Your task to perform on an android device: Open Amazon Image 0: 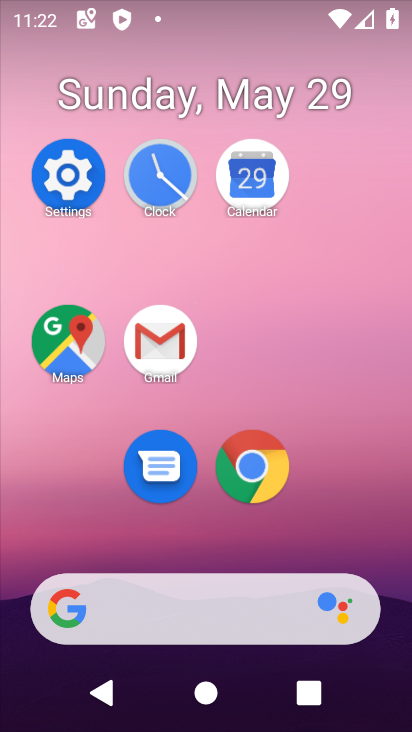
Step 0: click (252, 496)
Your task to perform on an android device: Open Amazon Image 1: 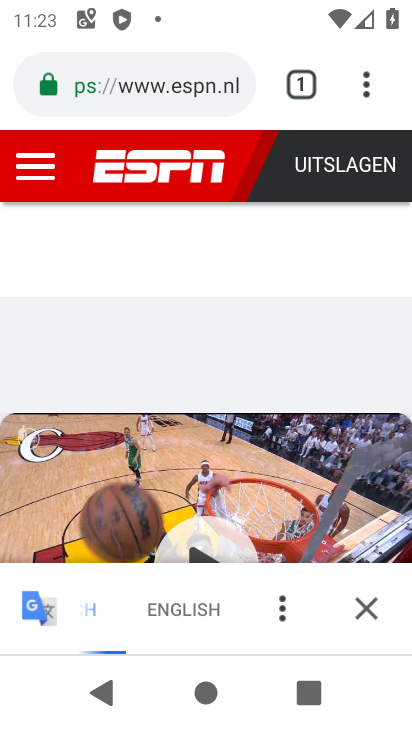
Step 1: click (295, 81)
Your task to perform on an android device: Open Amazon Image 2: 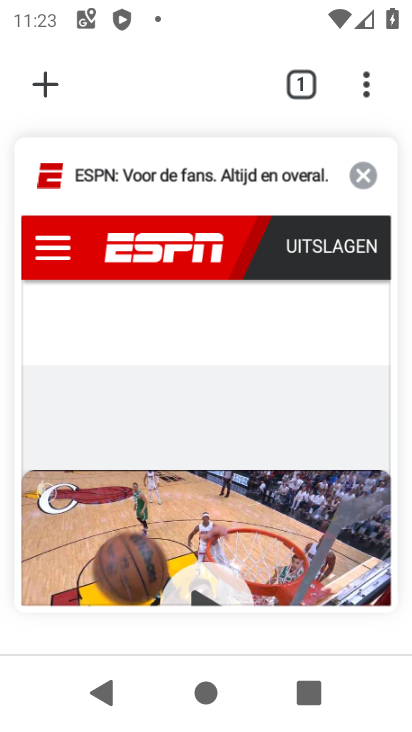
Step 2: click (47, 108)
Your task to perform on an android device: Open Amazon Image 3: 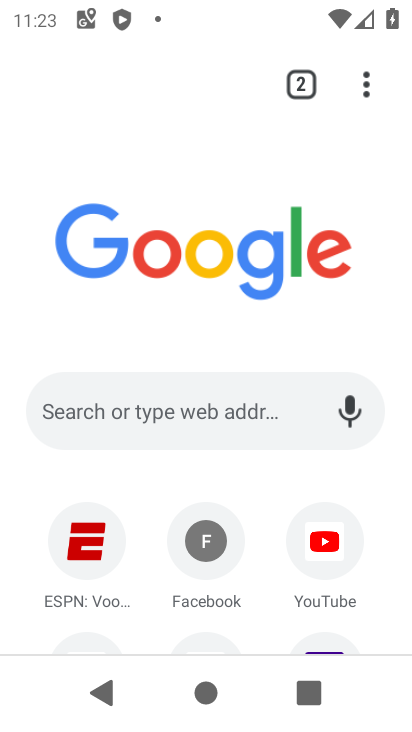
Step 3: drag from (271, 549) to (263, 237)
Your task to perform on an android device: Open Amazon Image 4: 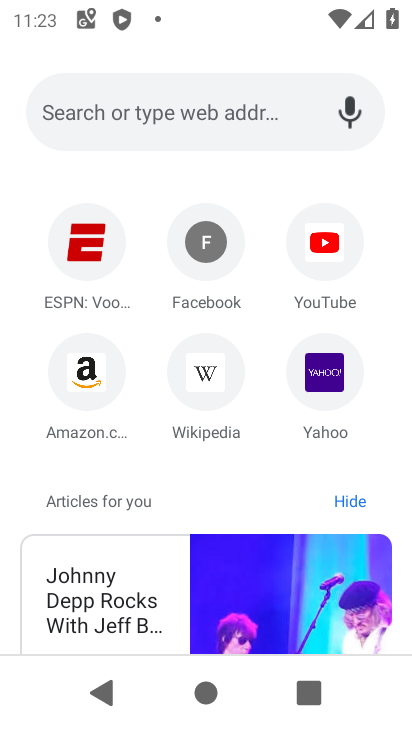
Step 4: click (86, 367)
Your task to perform on an android device: Open Amazon Image 5: 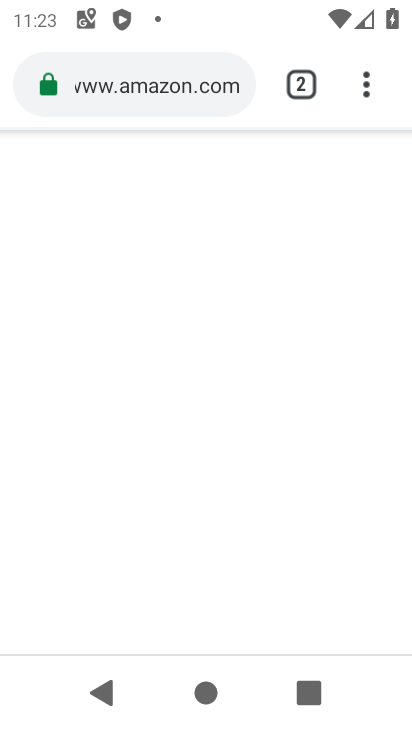
Step 5: task complete